Your task to perform on an android device: turn on priority inbox in the gmail app Image 0: 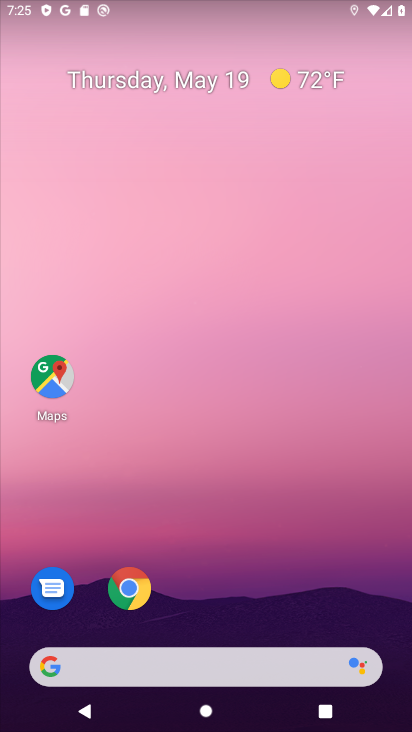
Step 0: drag from (301, 617) to (309, 130)
Your task to perform on an android device: turn on priority inbox in the gmail app Image 1: 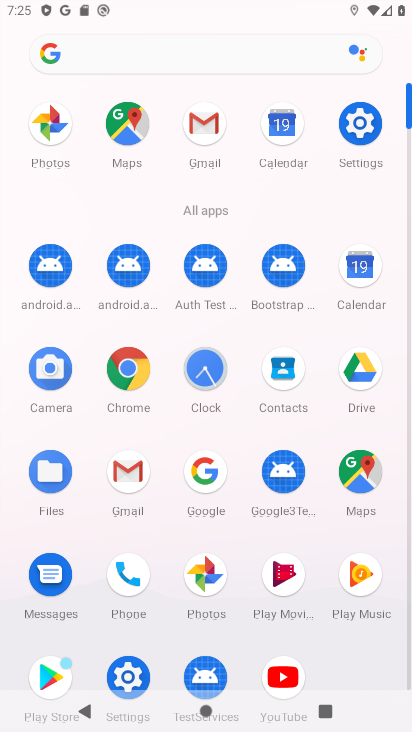
Step 1: click (134, 462)
Your task to perform on an android device: turn on priority inbox in the gmail app Image 2: 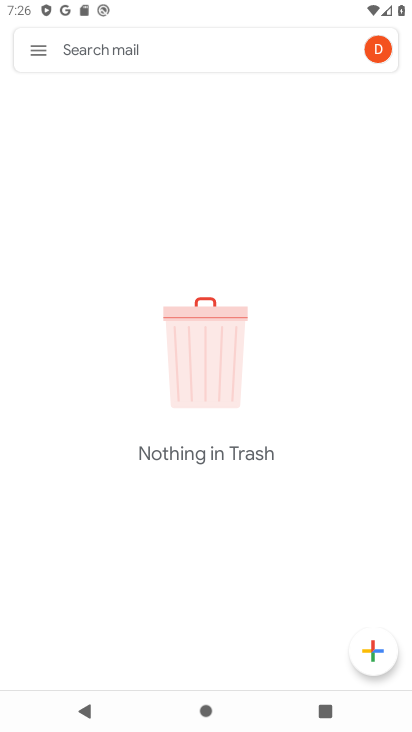
Step 2: click (36, 51)
Your task to perform on an android device: turn on priority inbox in the gmail app Image 3: 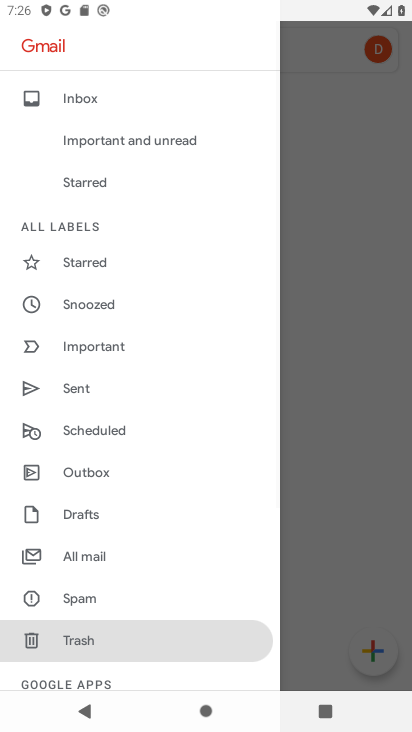
Step 3: drag from (180, 634) to (149, 259)
Your task to perform on an android device: turn on priority inbox in the gmail app Image 4: 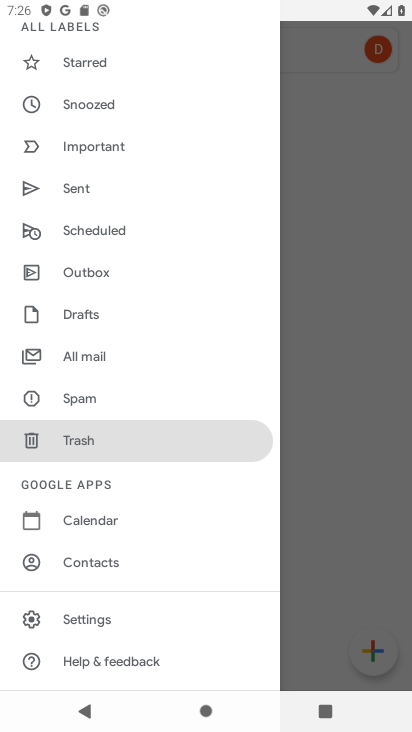
Step 4: click (113, 626)
Your task to perform on an android device: turn on priority inbox in the gmail app Image 5: 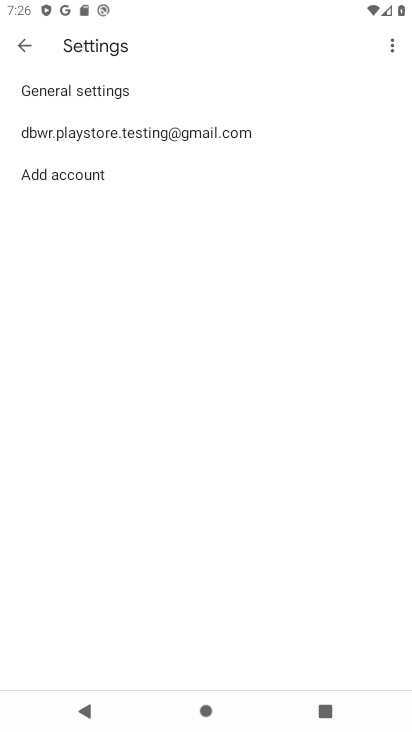
Step 5: click (155, 132)
Your task to perform on an android device: turn on priority inbox in the gmail app Image 6: 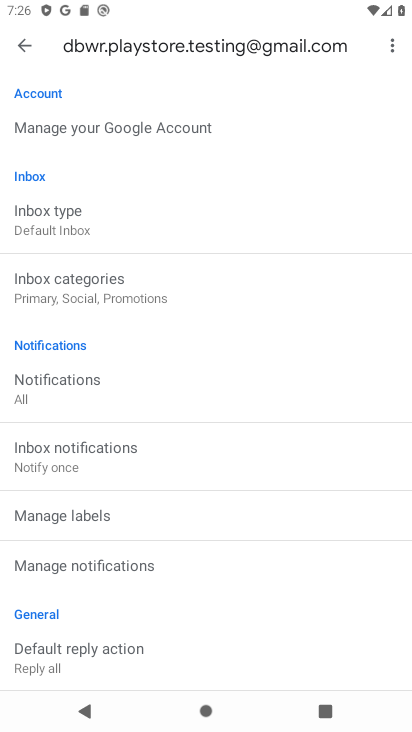
Step 6: click (81, 228)
Your task to perform on an android device: turn on priority inbox in the gmail app Image 7: 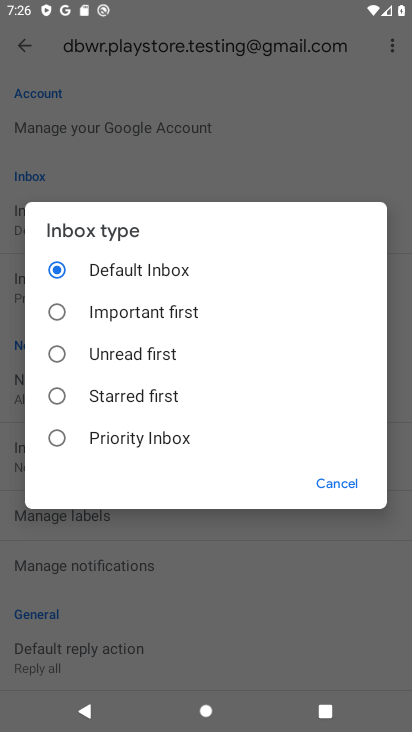
Step 7: click (107, 439)
Your task to perform on an android device: turn on priority inbox in the gmail app Image 8: 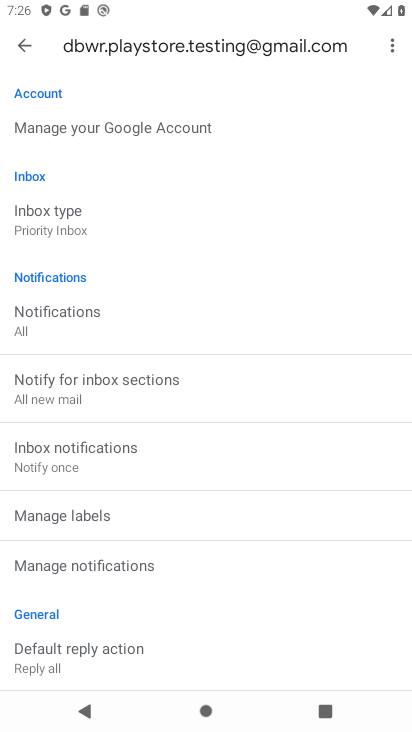
Step 8: task complete